Your task to perform on an android device: check data usage Image 0: 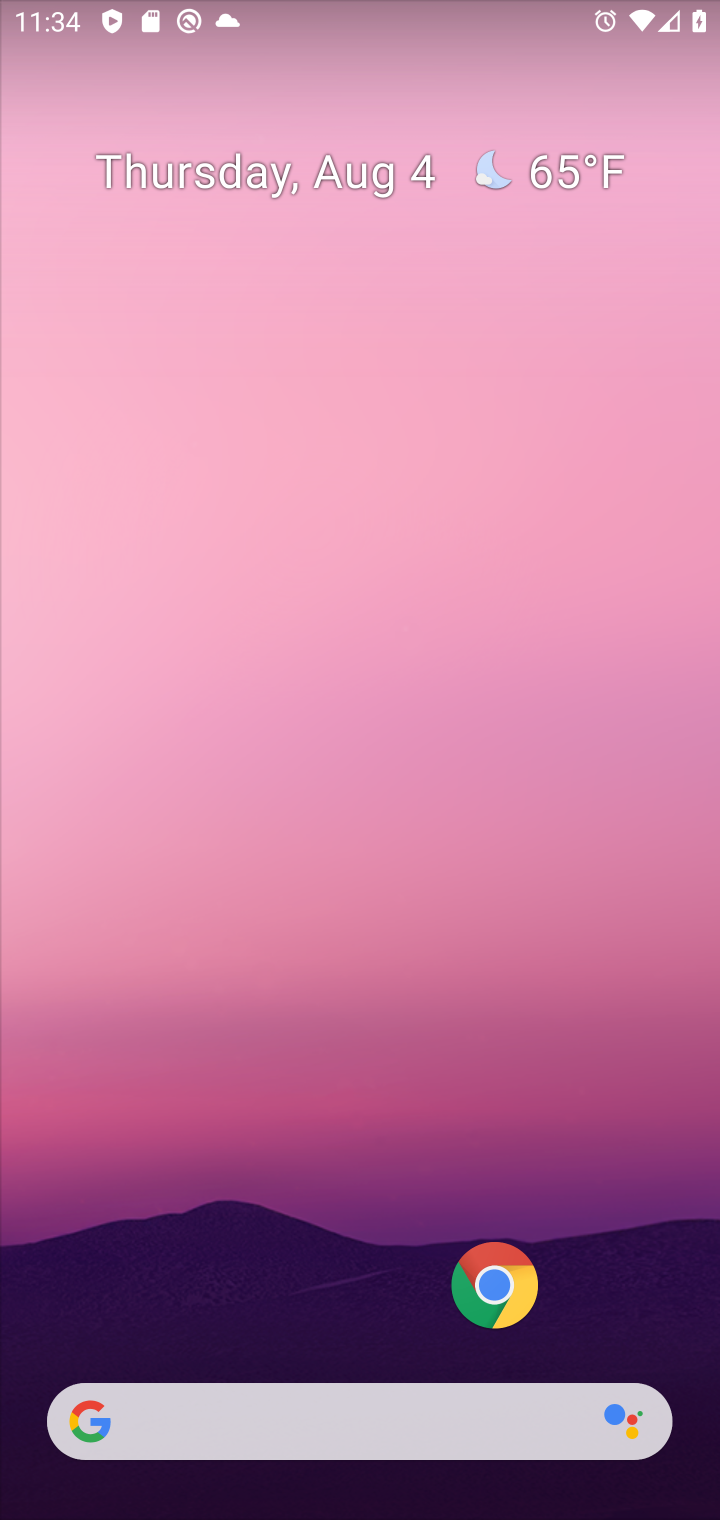
Step 0: press home button
Your task to perform on an android device: check data usage Image 1: 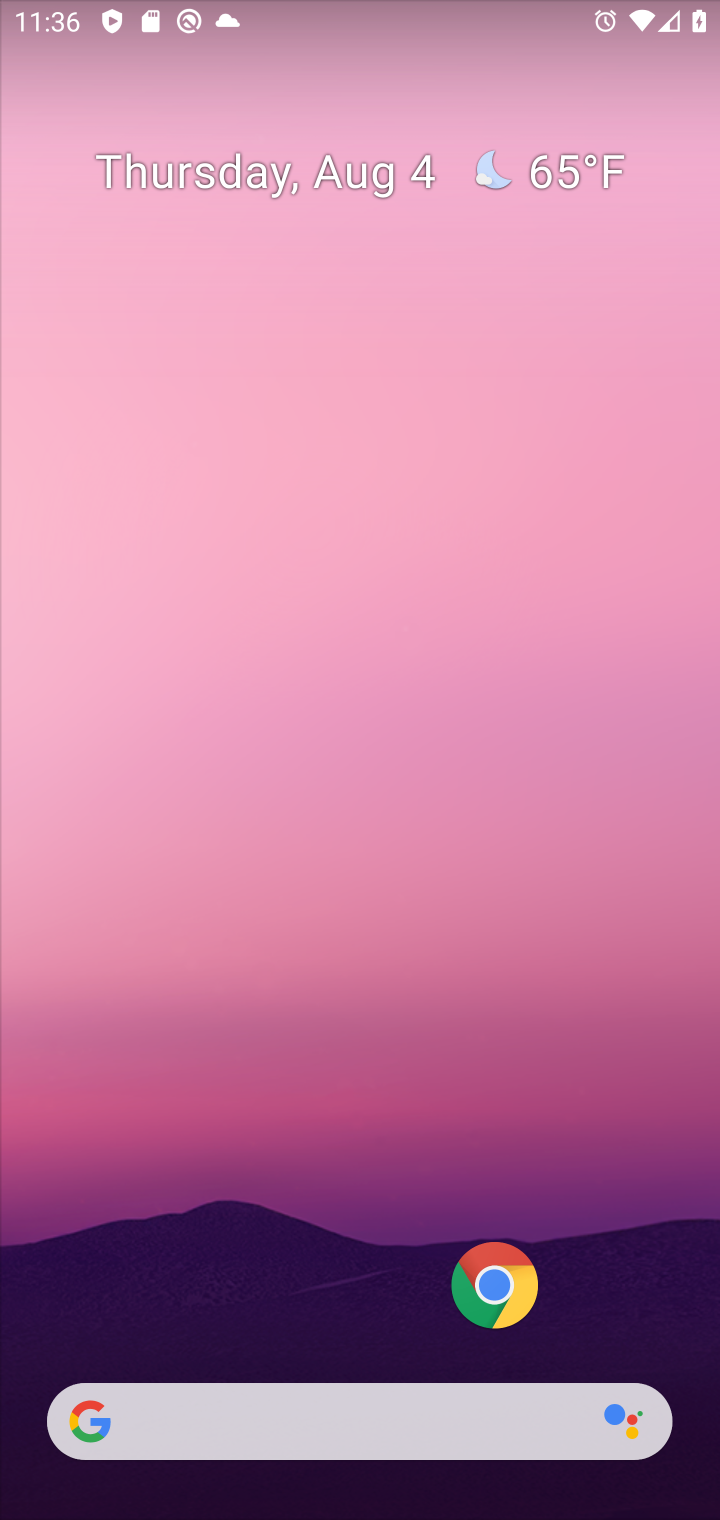
Step 1: drag from (603, 81) to (579, 1456)
Your task to perform on an android device: check data usage Image 2: 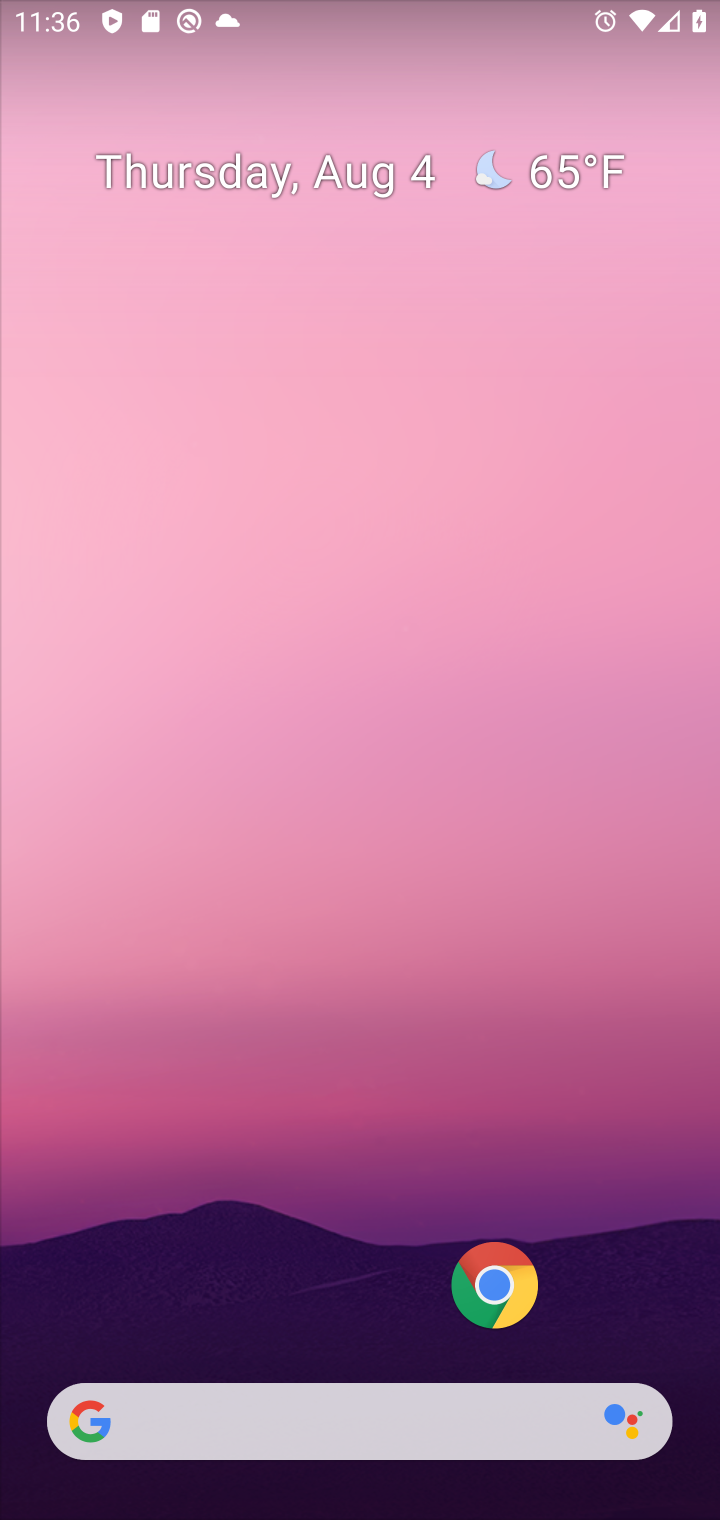
Step 2: drag from (624, 0) to (87, 1517)
Your task to perform on an android device: check data usage Image 3: 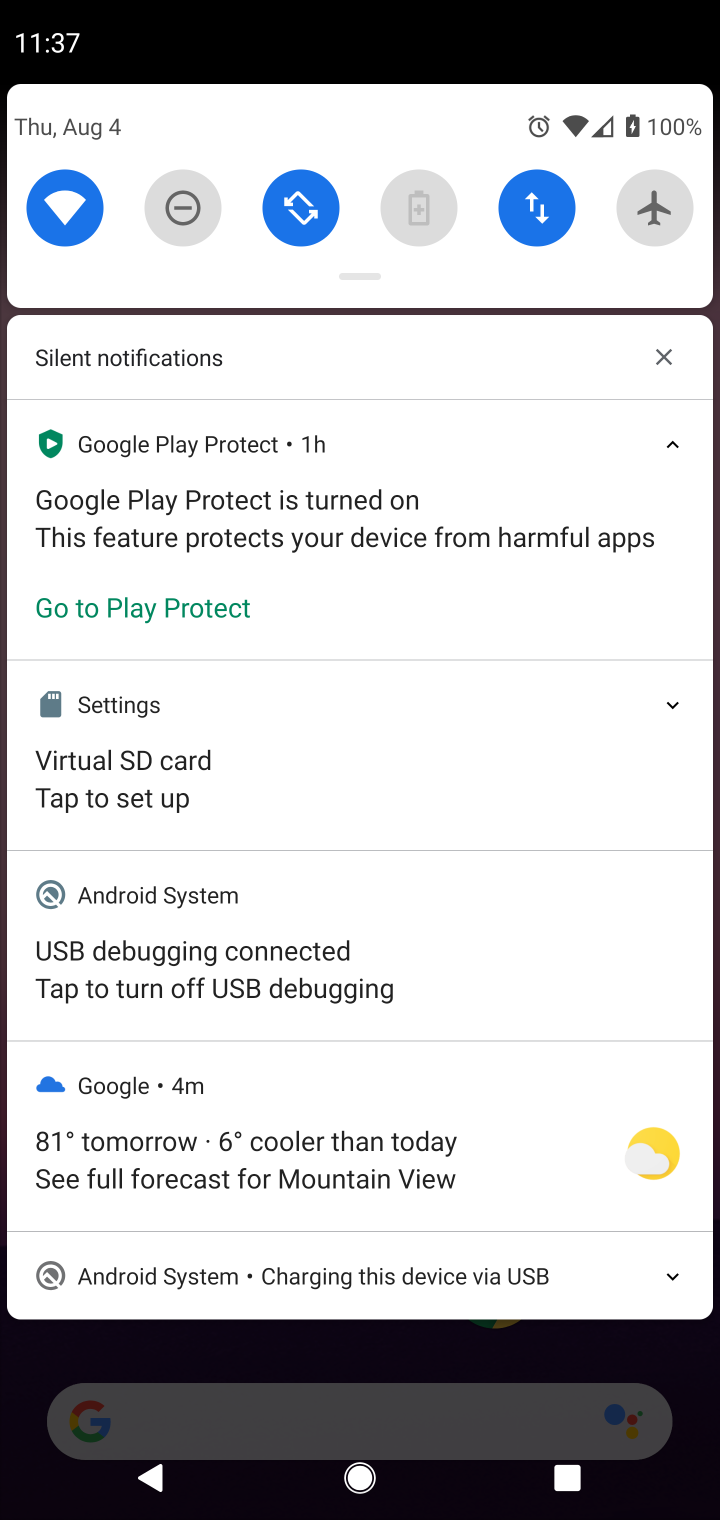
Step 3: click (529, 228)
Your task to perform on an android device: check data usage Image 4: 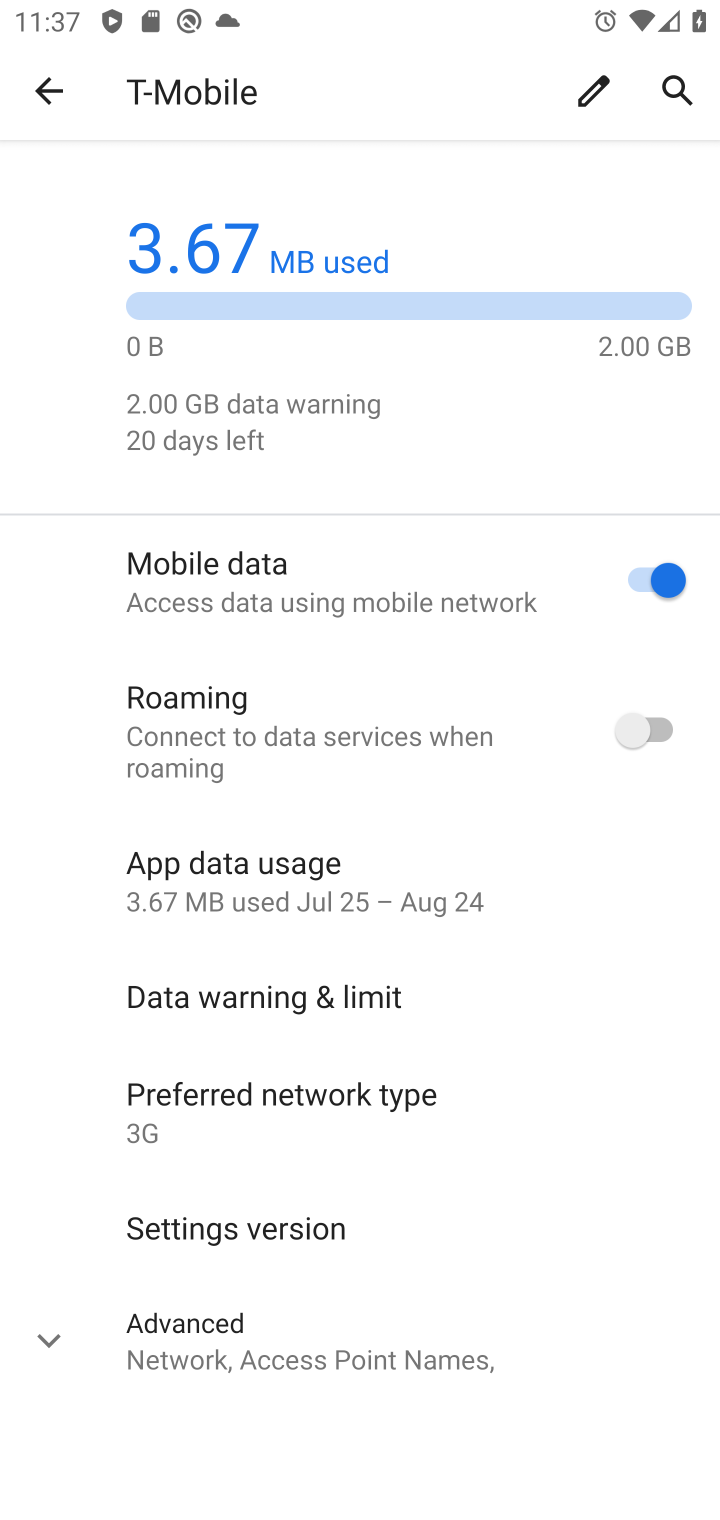
Step 4: task complete